Your task to perform on an android device: see tabs open on other devices in the chrome app Image 0: 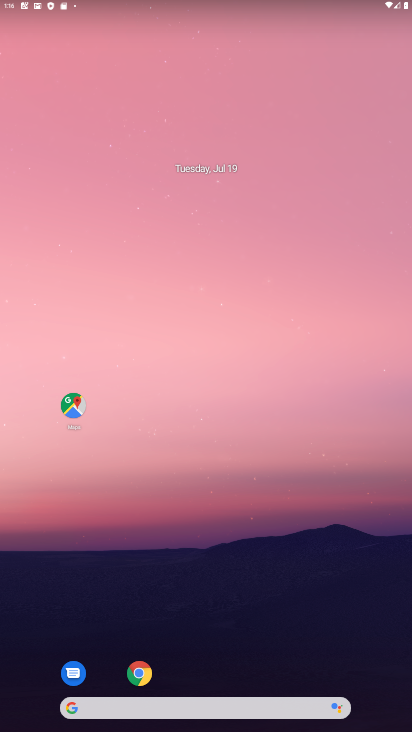
Step 0: drag from (223, 681) to (175, 233)
Your task to perform on an android device: see tabs open on other devices in the chrome app Image 1: 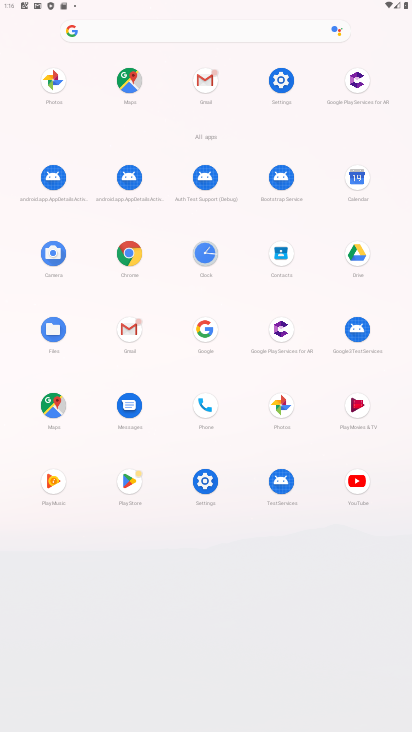
Step 1: click (128, 249)
Your task to perform on an android device: see tabs open on other devices in the chrome app Image 2: 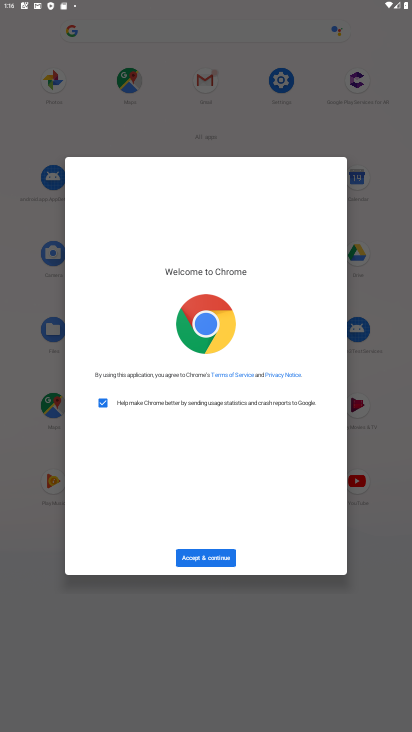
Step 2: click (213, 561)
Your task to perform on an android device: see tabs open on other devices in the chrome app Image 3: 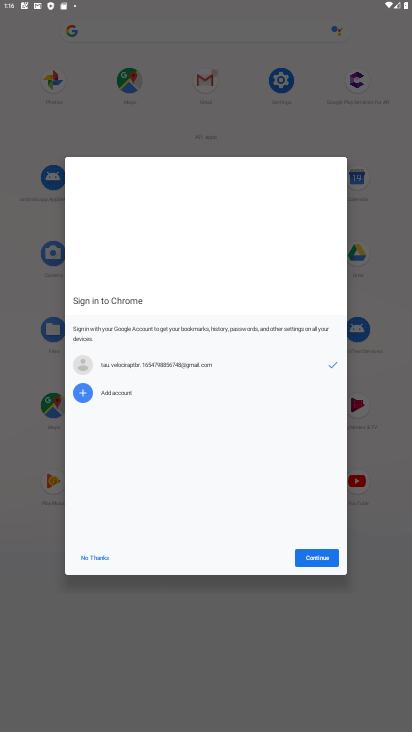
Step 3: click (307, 561)
Your task to perform on an android device: see tabs open on other devices in the chrome app Image 4: 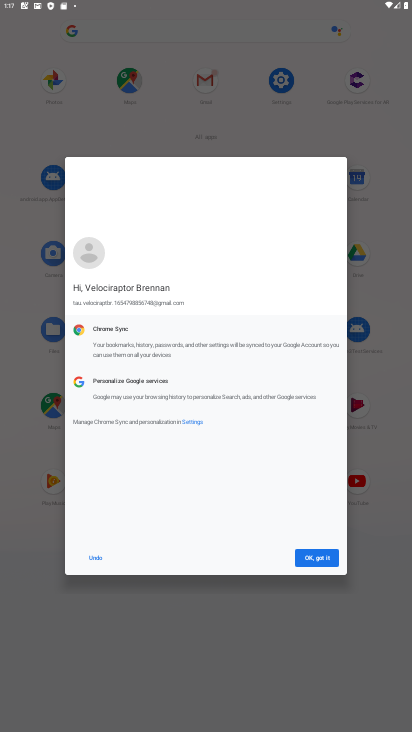
Step 4: click (307, 561)
Your task to perform on an android device: see tabs open on other devices in the chrome app Image 5: 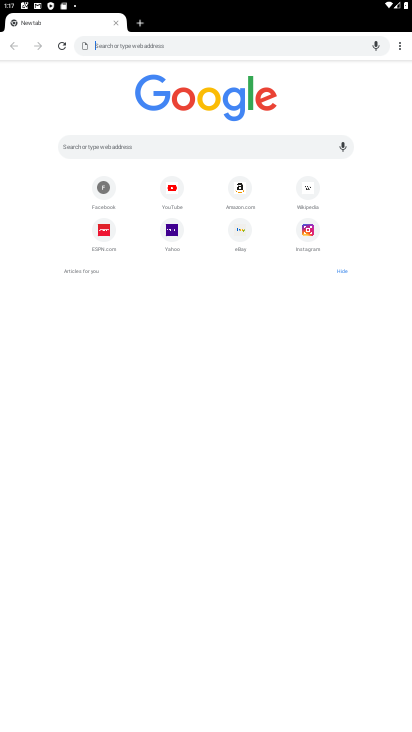
Step 5: task complete